Your task to perform on an android device: change notification settings in the gmail app Image 0: 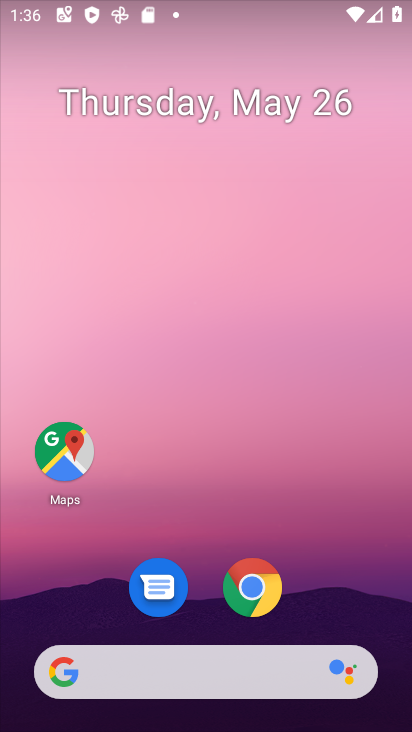
Step 0: drag from (377, 599) to (362, 195)
Your task to perform on an android device: change notification settings in the gmail app Image 1: 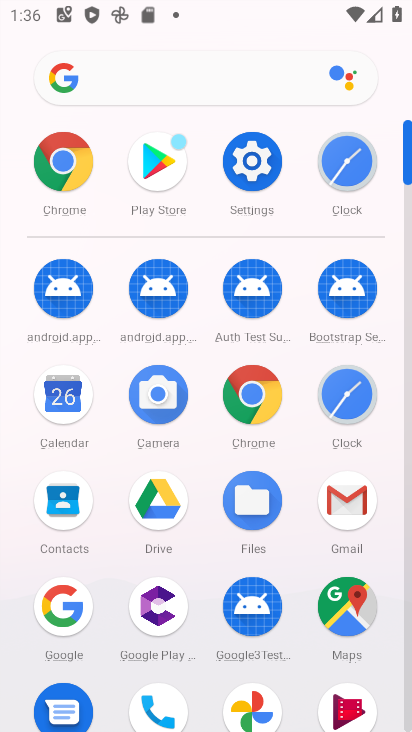
Step 1: click (362, 513)
Your task to perform on an android device: change notification settings in the gmail app Image 2: 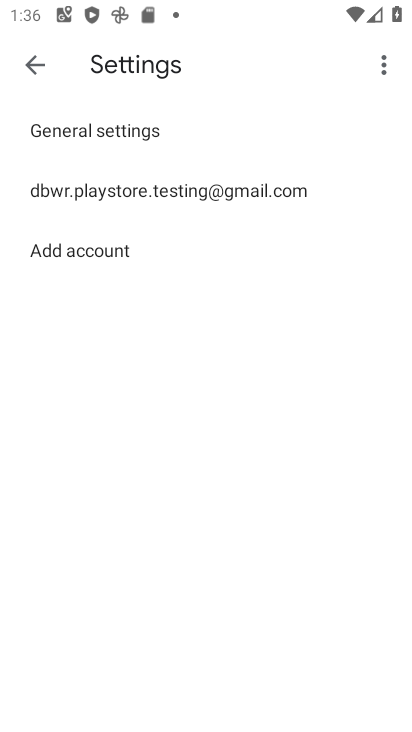
Step 2: click (214, 200)
Your task to perform on an android device: change notification settings in the gmail app Image 3: 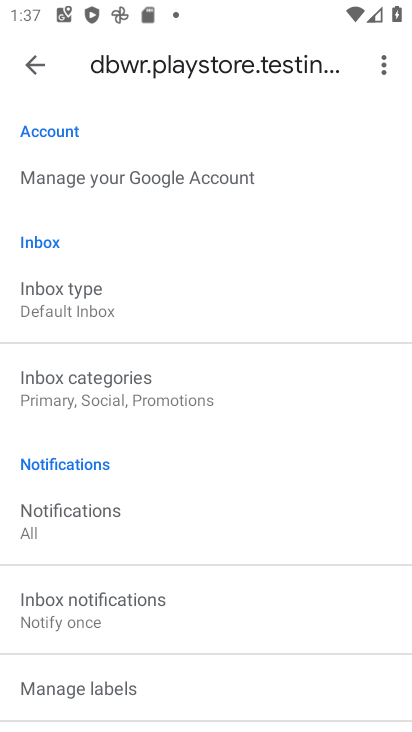
Step 3: drag from (323, 582) to (317, 422)
Your task to perform on an android device: change notification settings in the gmail app Image 4: 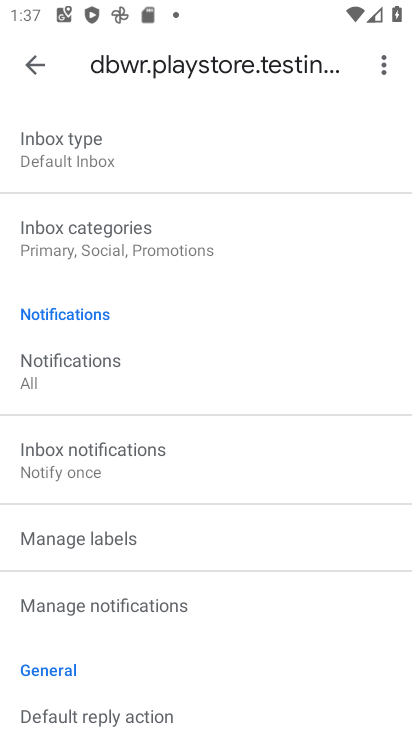
Step 4: drag from (311, 581) to (313, 466)
Your task to perform on an android device: change notification settings in the gmail app Image 5: 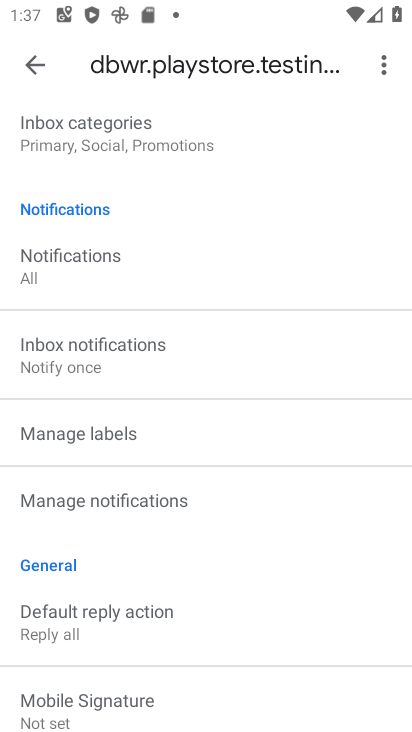
Step 5: drag from (293, 625) to (285, 511)
Your task to perform on an android device: change notification settings in the gmail app Image 6: 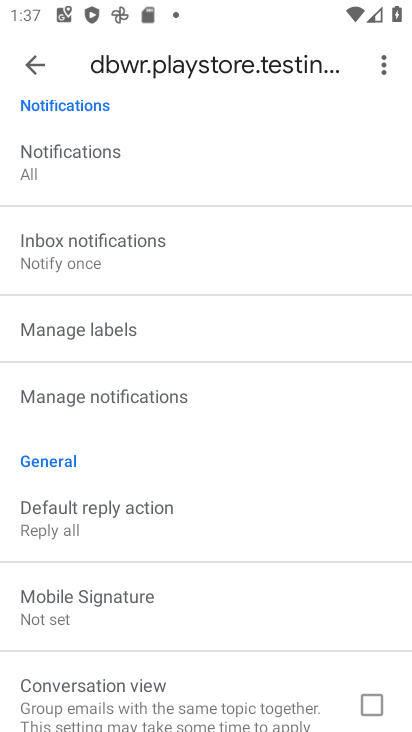
Step 6: drag from (273, 401) to (288, 479)
Your task to perform on an android device: change notification settings in the gmail app Image 7: 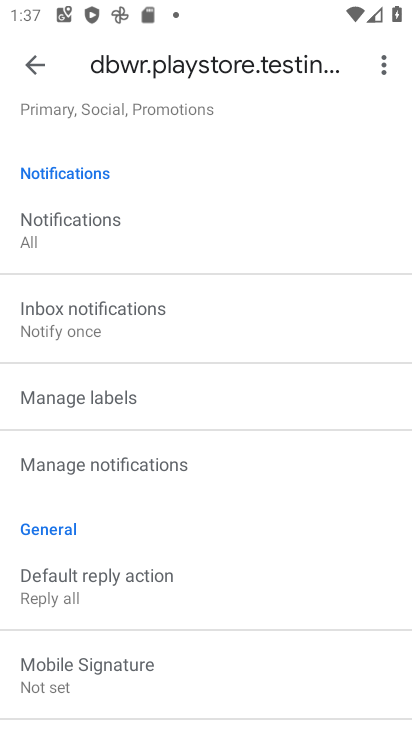
Step 7: drag from (288, 315) to (288, 420)
Your task to perform on an android device: change notification settings in the gmail app Image 8: 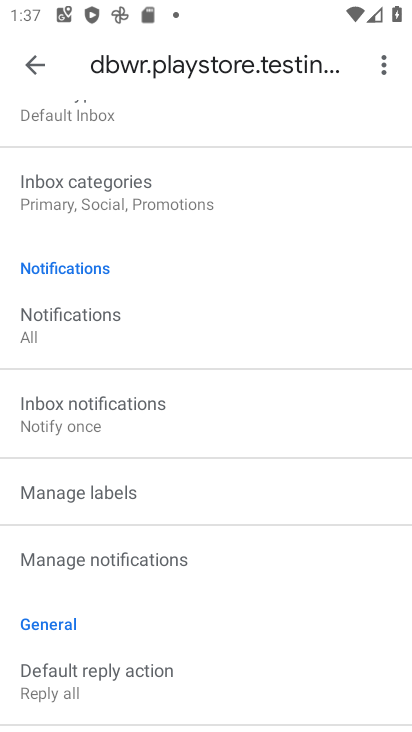
Step 8: drag from (270, 279) to (266, 398)
Your task to perform on an android device: change notification settings in the gmail app Image 9: 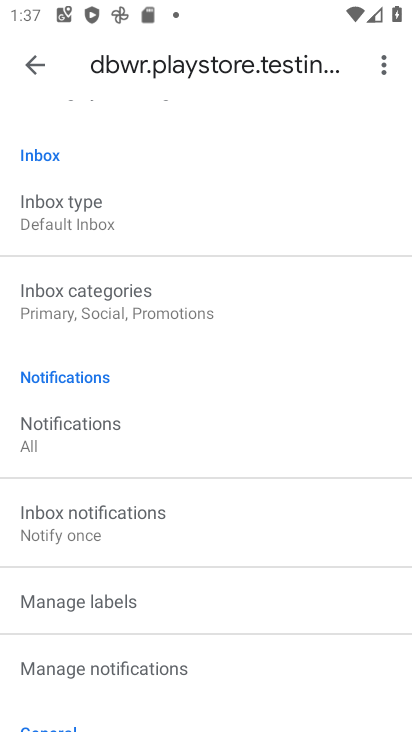
Step 9: drag from (242, 302) to (251, 400)
Your task to perform on an android device: change notification settings in the gmail app Image 10: 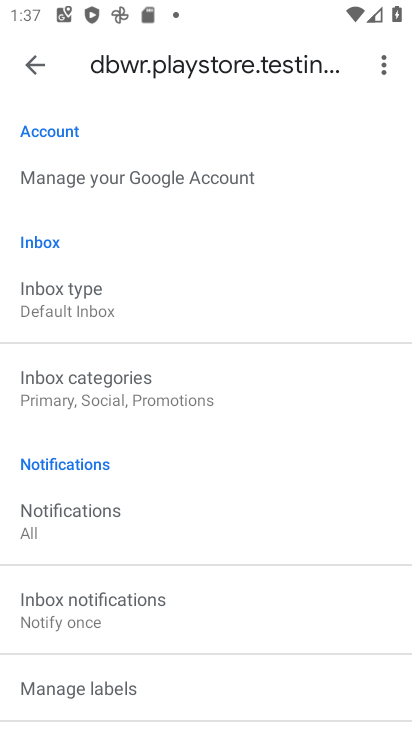
Step 10: drag from (189, 544) to (192, 431)
Your task to perform on an android device: change notification settings in the gmail app Image 11: 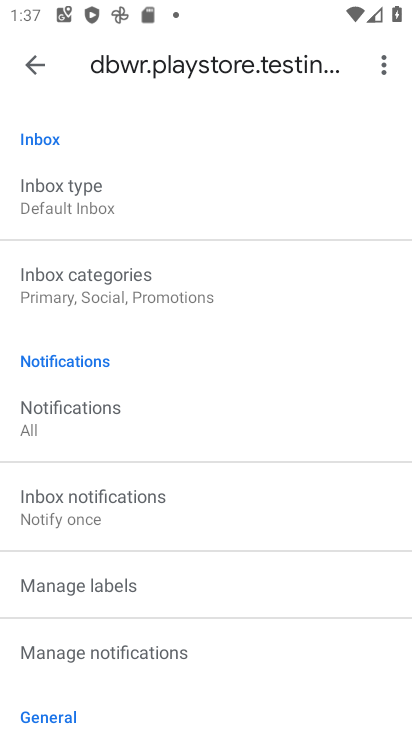
Step 11: drag from (273, 275) to (280, 409)
Your task to perform on an android device: change notification settings in the gmail app Image 12: 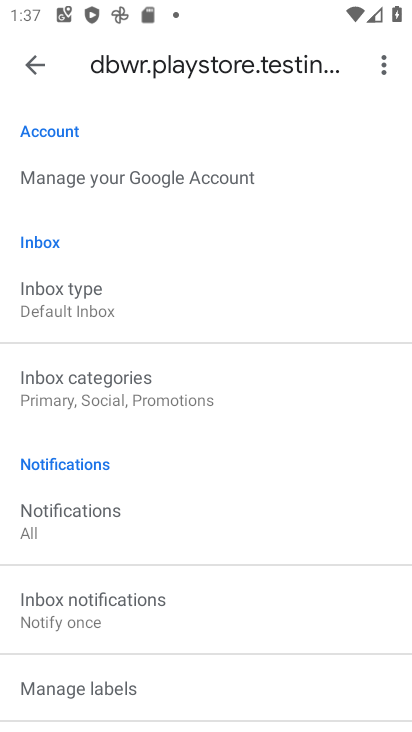
Step 12: drag from (268, 480) to (269, 387)
Your task to perform on an android device: change notification settings in the gmail app Image 13: 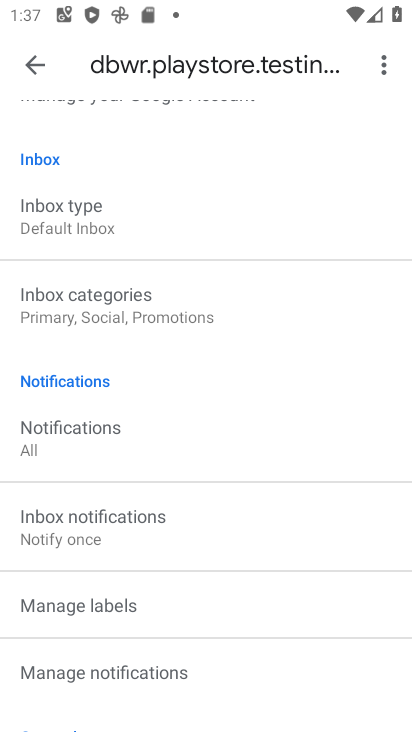
Step 13: drag from (272, 525) to (265, 433)
Your task to perform on an android device: change notification settings in the gmail app Image 14: 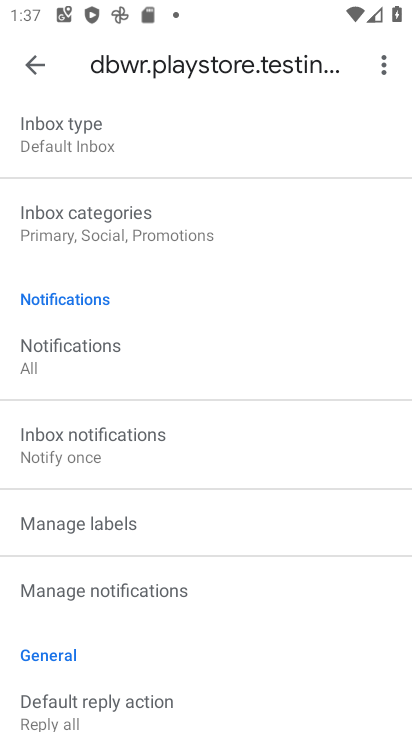
Step 14: drag from (261, 561) to (257, 470)
Your task to perform on an android device: change notification settings in the gmail app Image 15: 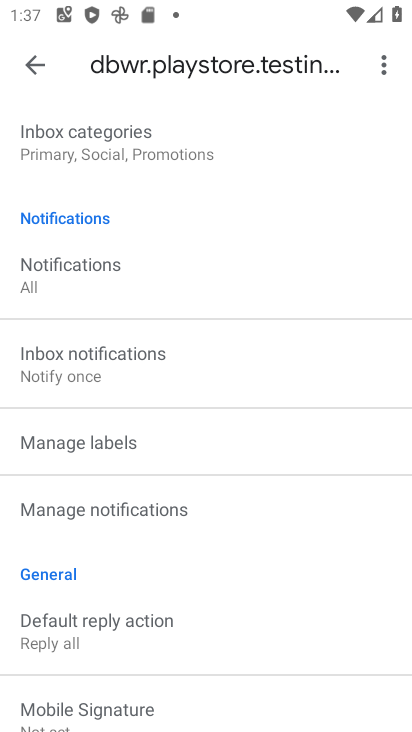
Step 15: click (100, 274)
Your task to perform on an android device: change notification settings in the gmail app Image 16: 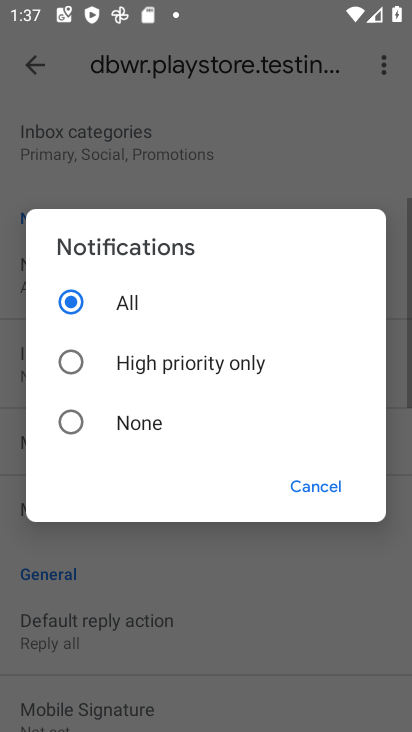
Step 16: click (166, 357)
Your task to perform on an android device: change notification settings in the gmail app Image 17: 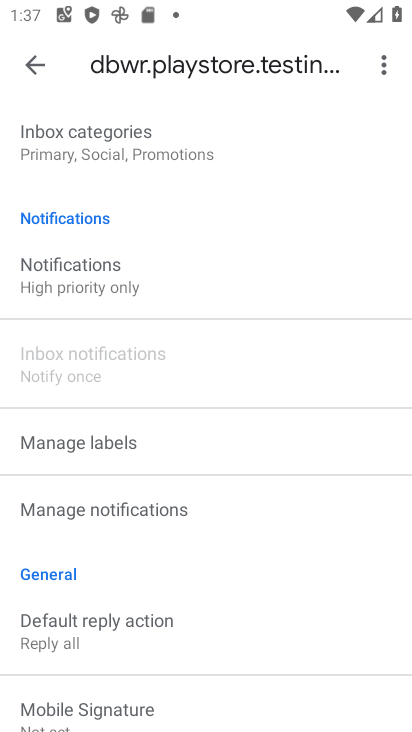
Step 17: task complete